Your task to perform on an android device: Open settings on Google Maps Image 0: 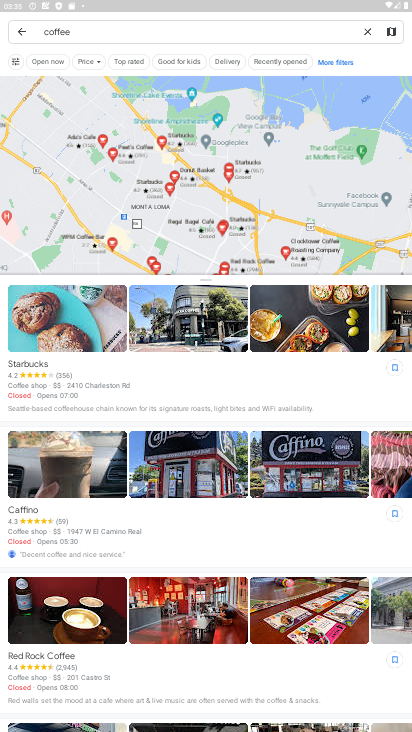
Step 0: click (20, 35)
Your task to perform on an android device: Open settings on Google Maps Image 1: 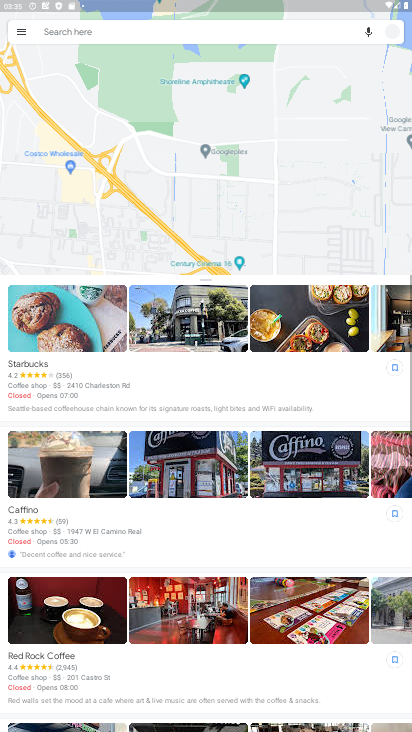
Step 1: click (22, 34)
Your task to perform on an android device: Open settings on Google Maps Image 2: 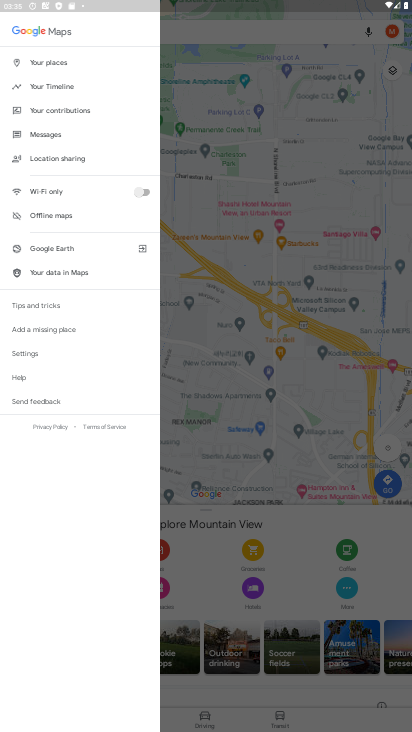
Step 2: click (26, 354)
Your task to perform on an android device: Open settings on Google Maps Image 3: 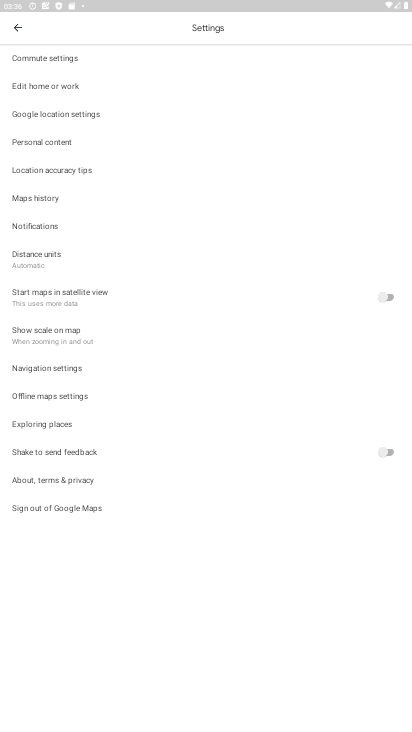
Step 3: task complete